Your task to perform on an android device: turn on improve location accuracy Image 0: 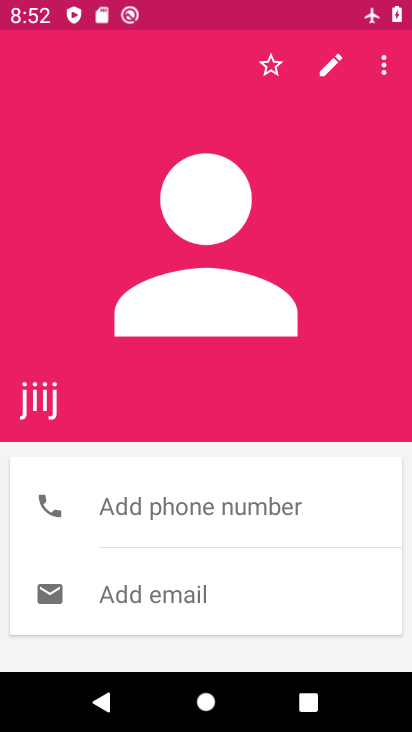
Step 0: press home button
Your task to perform on an android device: turn on improve location accuracy Image 1: 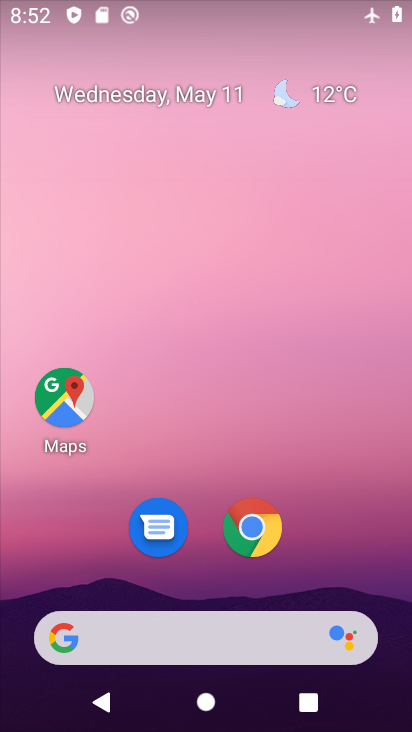
Step 1: drag from (341, 559) to (302, 67)
Your task to perform on an android device: turn on improve location accuracy Image 2: 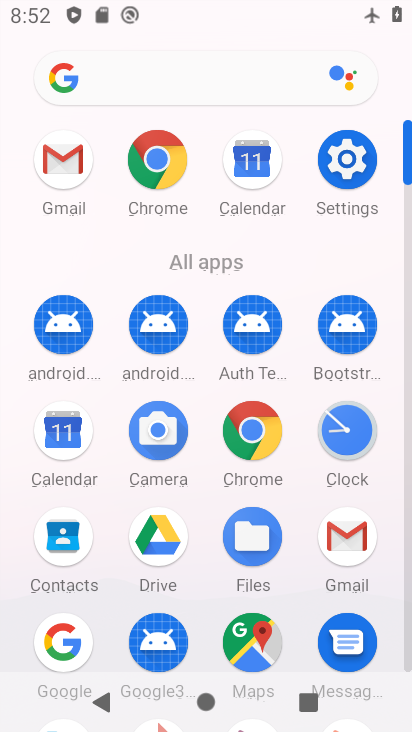
Step 2: click (341, 150)
Your task to perform on an android device: turn on improve location accuracy Image 3: 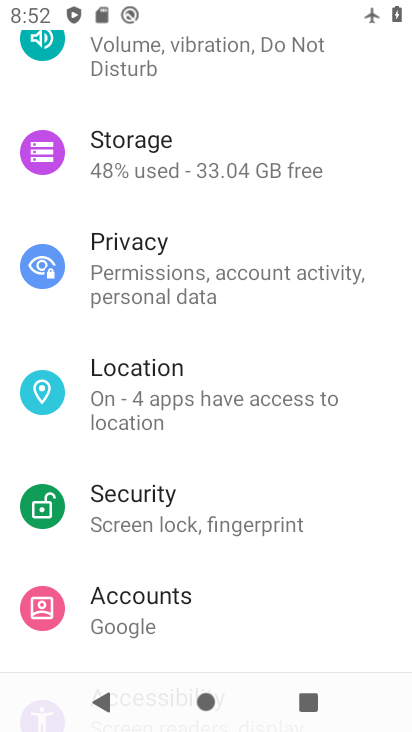
Step 3: click (195, 413)
Your task to perform on an android device: turn on improve location accuracy Image 4: 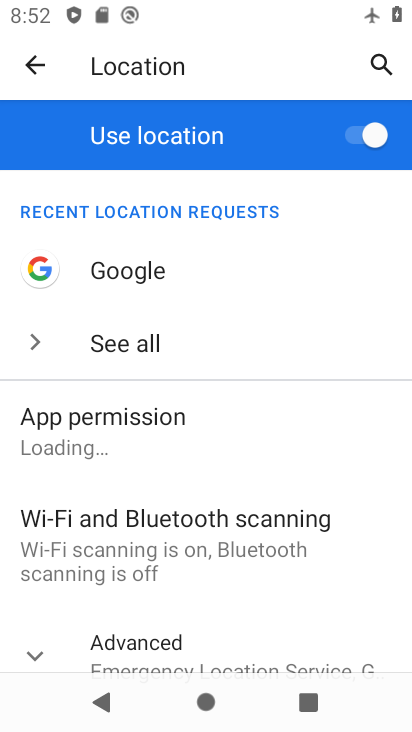
Step 4: drag from (197, 610) to (248, 352)
Your task to perform on an android device: turn on improve location accuracy Image 5: 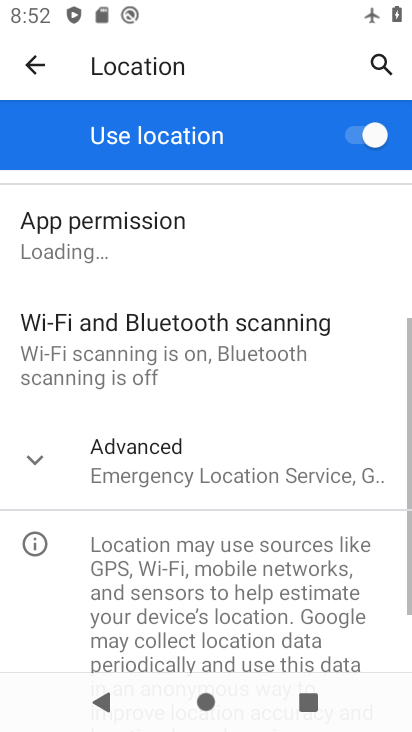
Step 5: click (183, 470)
Your task to perform on an android device: turn on improve location accuracy Image 6: 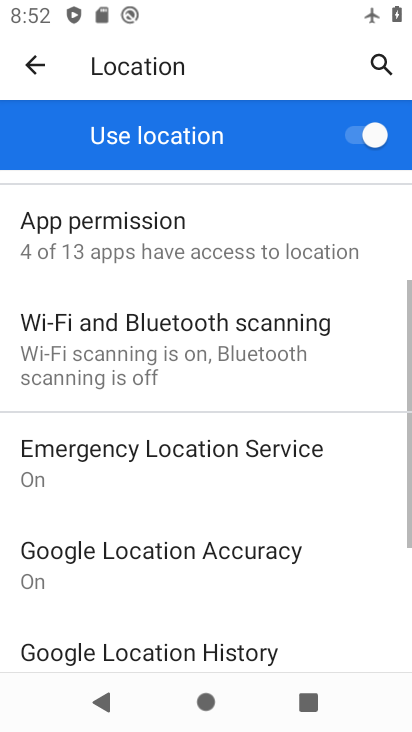
Step 6: drag from (243, 644) to (267, 386)
Your task to perform on an android device: turn on improve location accuracy Image 7: 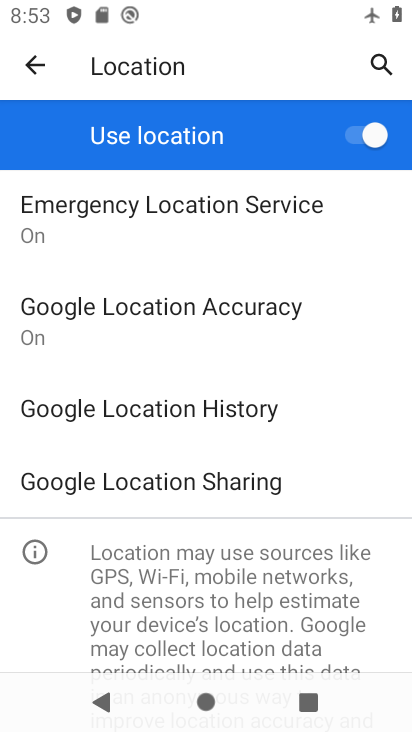
Step 7: click (259, 313)
Your task to perform on an android device: turn on improve location accuracy Image 8: 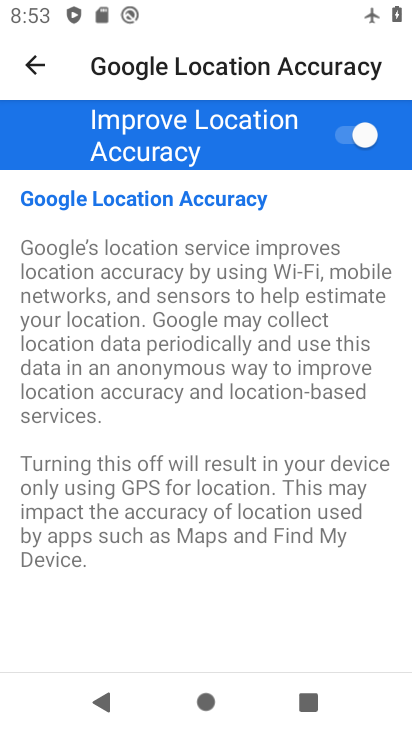
Step 8: click (336, 141)
Your task to perform on an android device: turn on improve location accuracy Image 9: 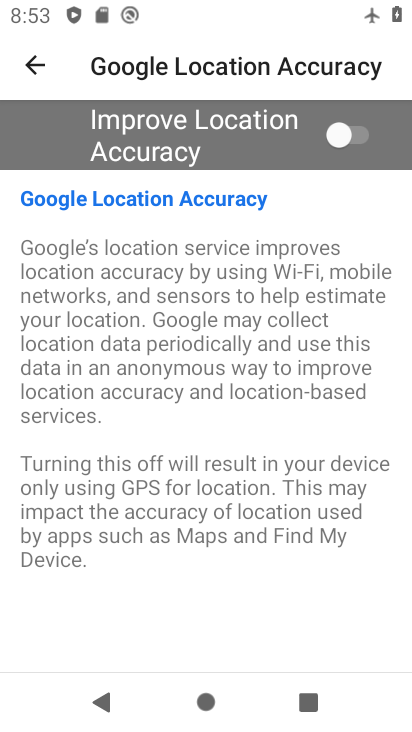
Step 9: task complete